Your task to perform on an android device: change the clock display to show seconds Image 0: 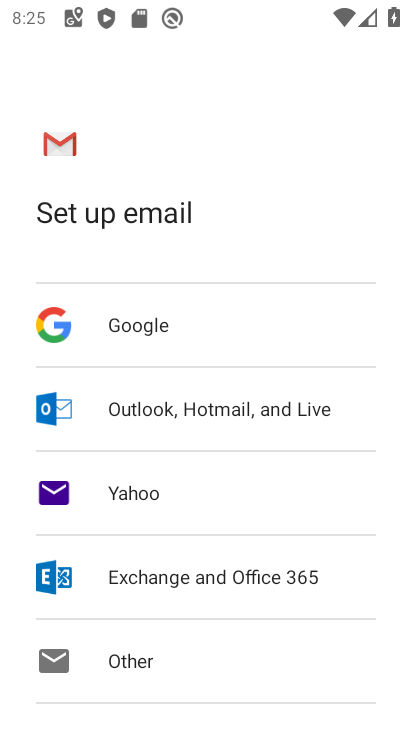
Step 0: press home button
Your task to perform on an android device: change the clock display to show seconds Image 1: 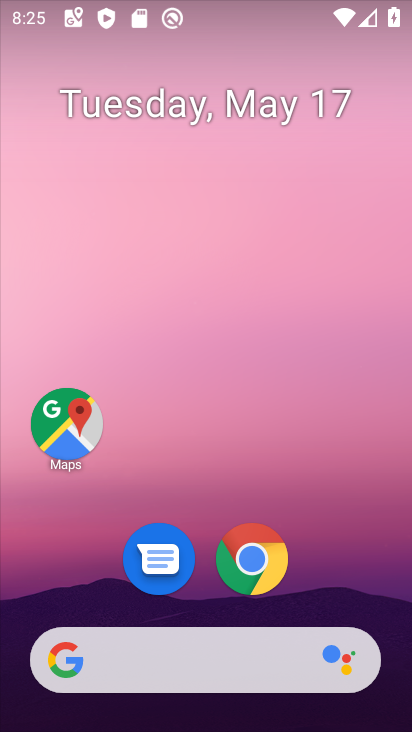
Step 1: drag from (258, 681) to (195, 66)
Your task to perform on an android device: change the clock display to show seconds Image 2: 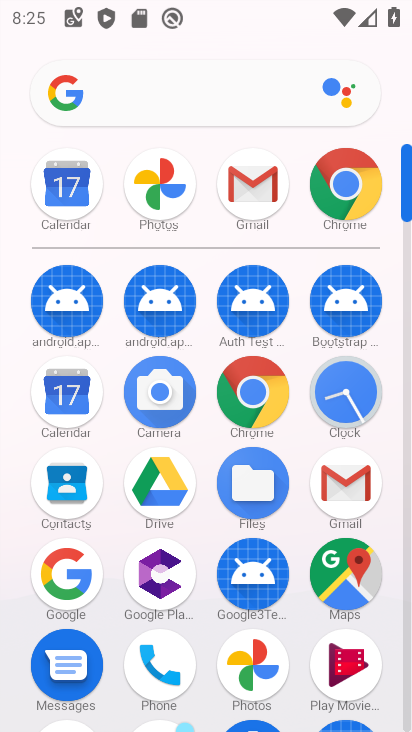
Step 2: click (365, 390)
Your task to perform on an android device: change the clock display to show seconds Image 3: 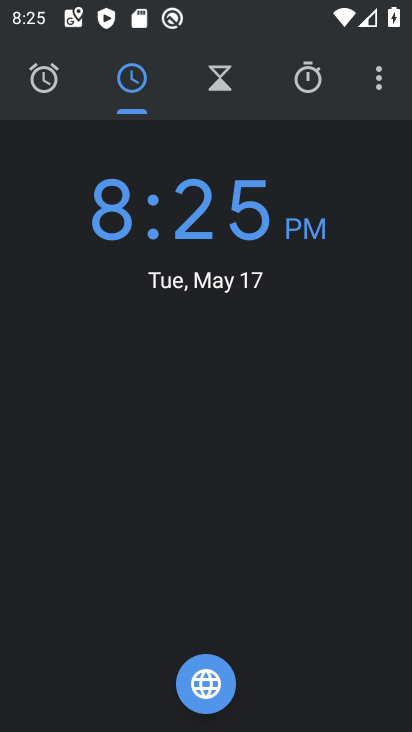
Step 3: click (383, 77)
Your task to perform on an android device: change the clock display to show seconds Image 4: 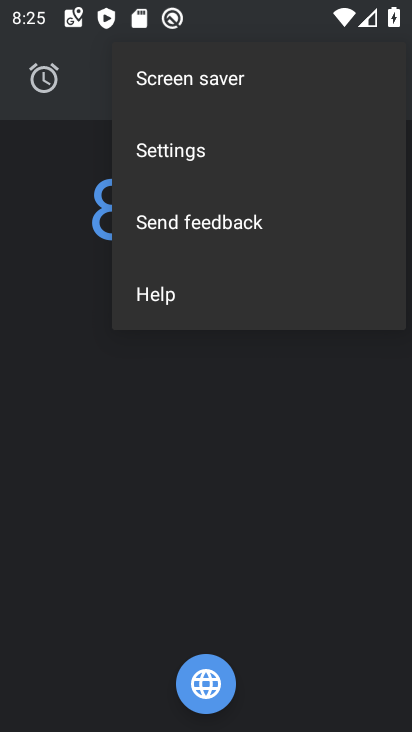
Step 4: click (272, 167)
Your task to perform on an android device: change the clock display to show seconds Image 5: 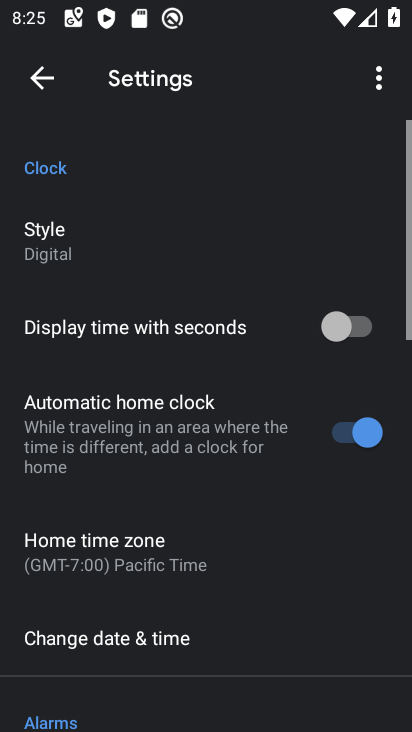
Step 5: click (356, 336)
Your task to perform on an android device: change the clock display to show seconds Image 6: 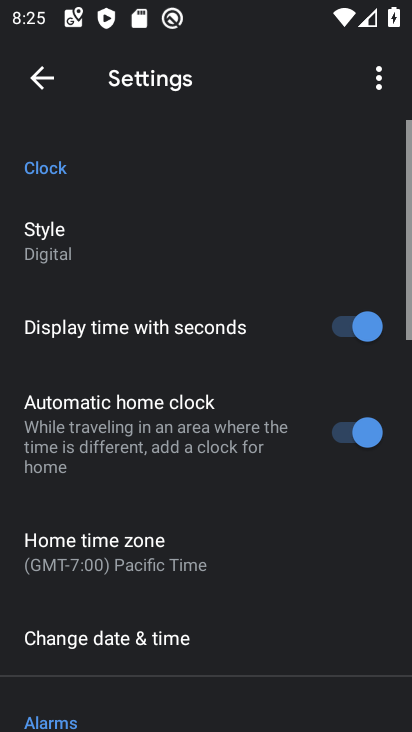
Step 6: task complete